Your task to perform on an android device: Open sound settings Image 0: 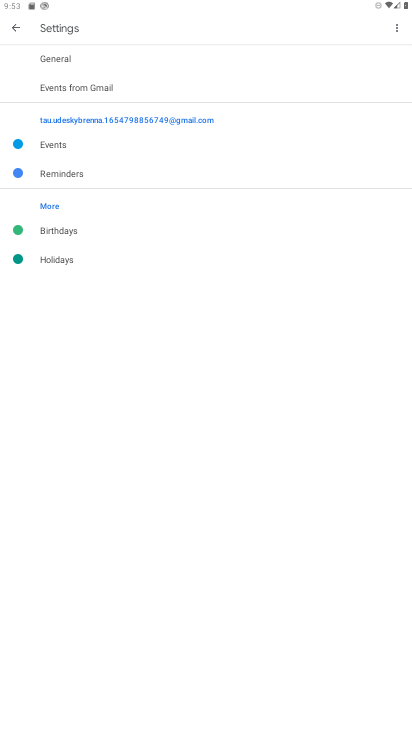
Step 0: click (15, 35)
Your task to perform on an android device: Open sound settings Image 1: 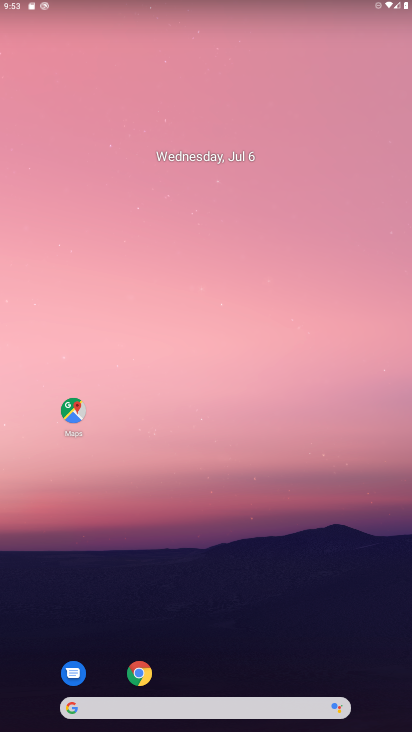
Step 1: drag from (206, 7) to (258, 429)
Your task to perform on an android device: Open sound settings Image 2: 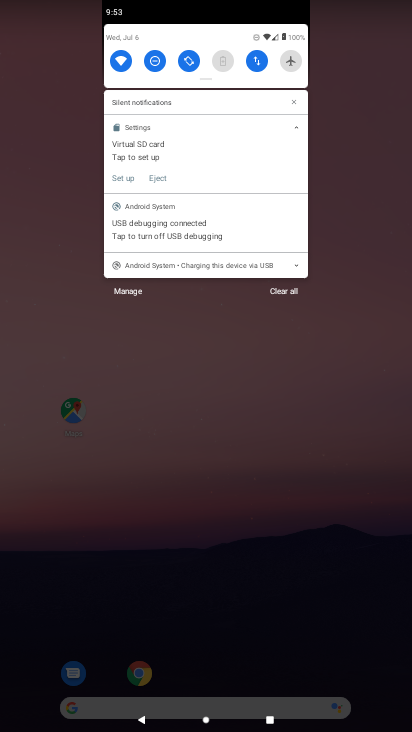
Step 2: drag from (213, 39) to (246, 409)
Your task to perform on an android device: Open sound settings Image 3: 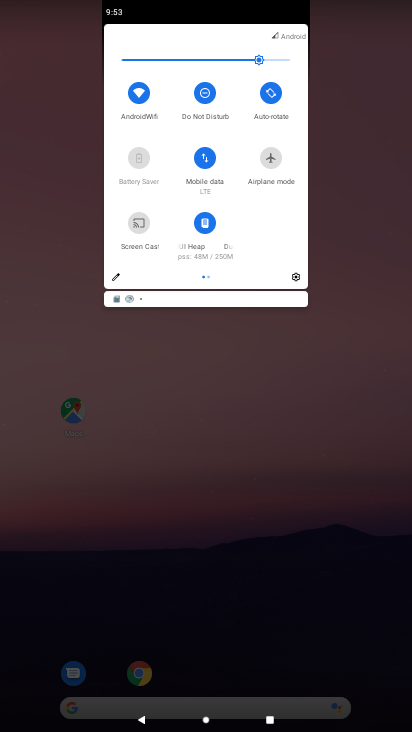
Step 3: click (298, 271)
Your task to perform on an android device: Open sound settings Image 4: 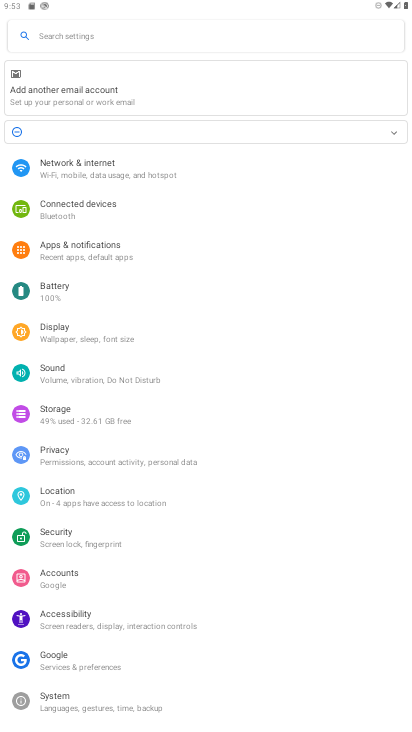
Step 4: click (76, 374)
Your task to perform on an android device: Open sound settings Image 5: 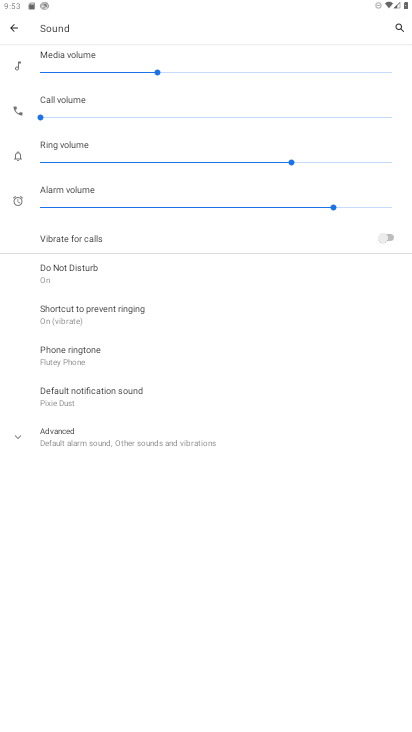
Step 5: task complete